Your task to perform on an android device: find which apps use the phone's location Image 0: 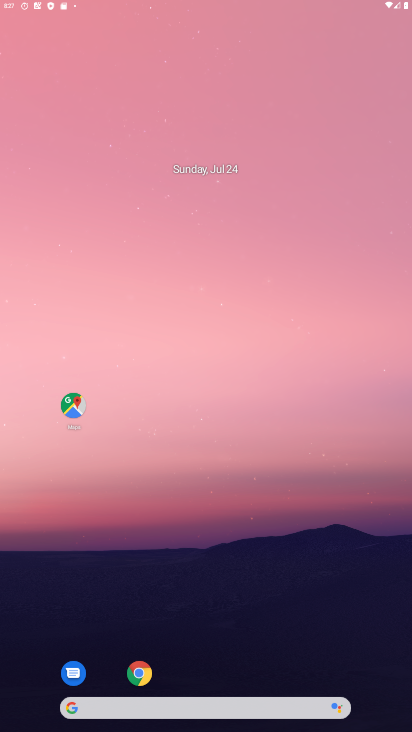
Step 0: click (131, 85)
Your task to perform on an android device: find which apps use the phone's location Image 1: 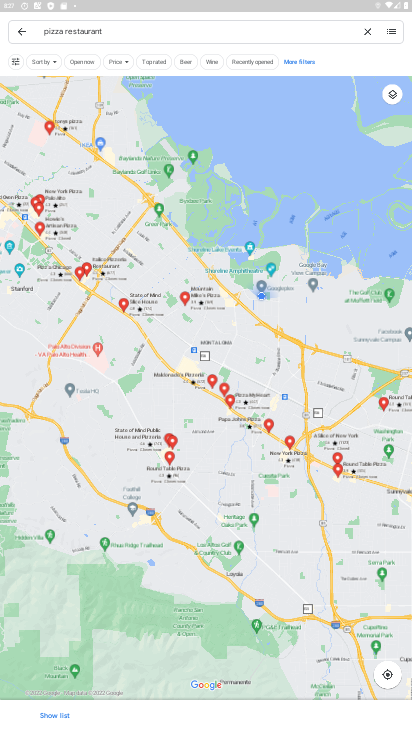
Step 1: press home button
Your task to perform on an android device: find which apps use the phone's location Image 2: 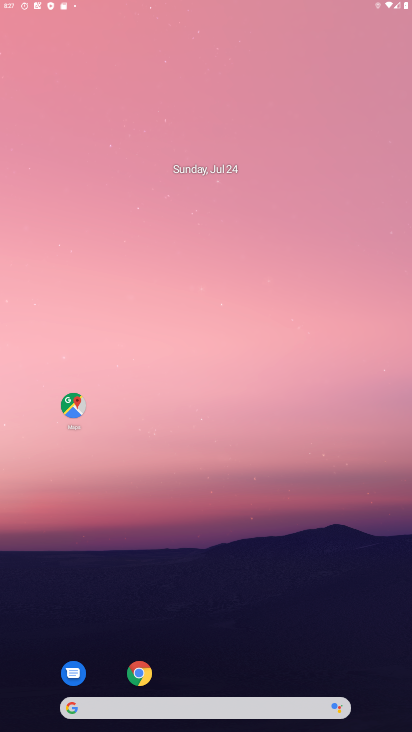
Step 2: drag from (127, 601) to (192, 134)
Your task to perform on an android device: find which apps use the phone's location Image 3: 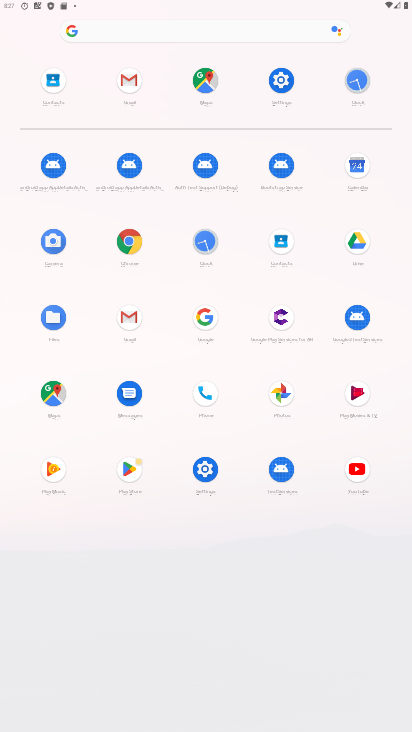
Step 3: drag from (188, 542) to (202, 235)
Your task to perform on an android device: find which apps use the phone's location Image 4: 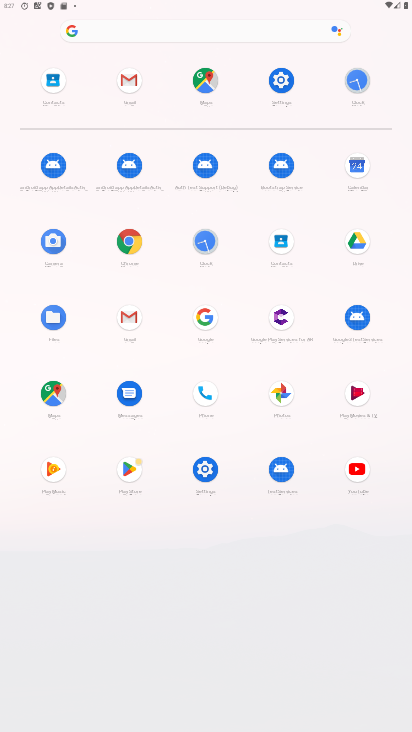
Step 4: drag from (260, 440) to (255, 174)
Your task to perform on an android device: find which apps use the phone's location Image 5: 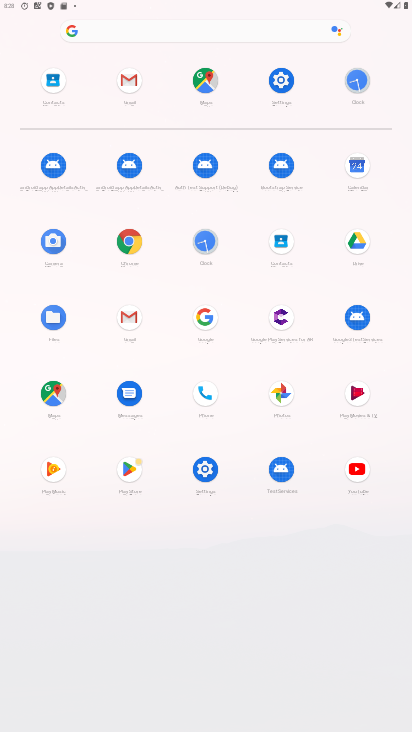
Step 5: click (278, 391)
Your task to perform on an android device: find which apps use the phone's location Image 6: 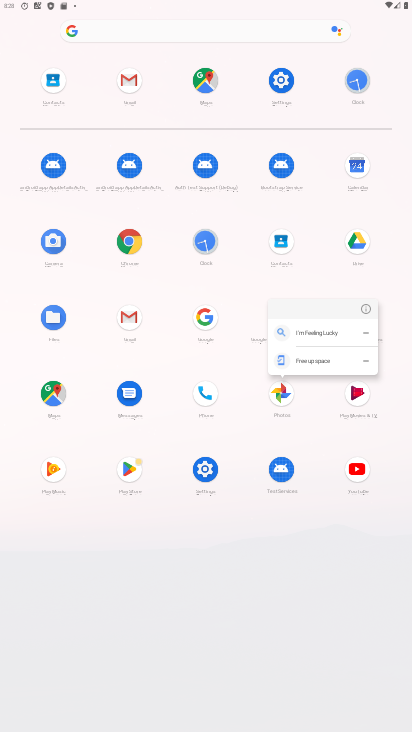
Step 6: click (364, 310)
Your task to perform on an android device: find which apps use the phone's location Image 7: 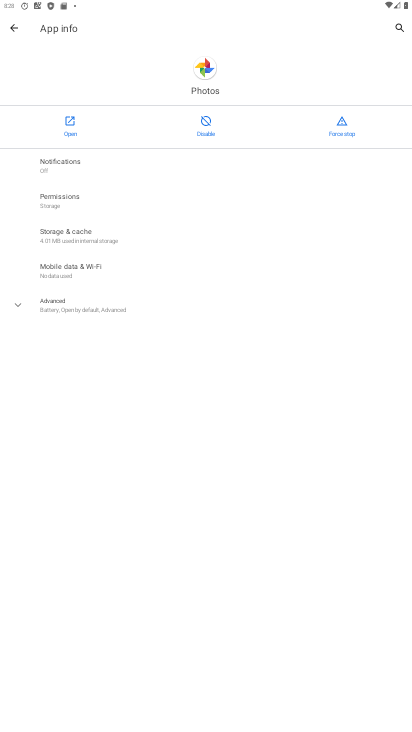
Step 7: click (77, 119)
Your task to perform on an android device: find which apps use the phone's location Image 8: 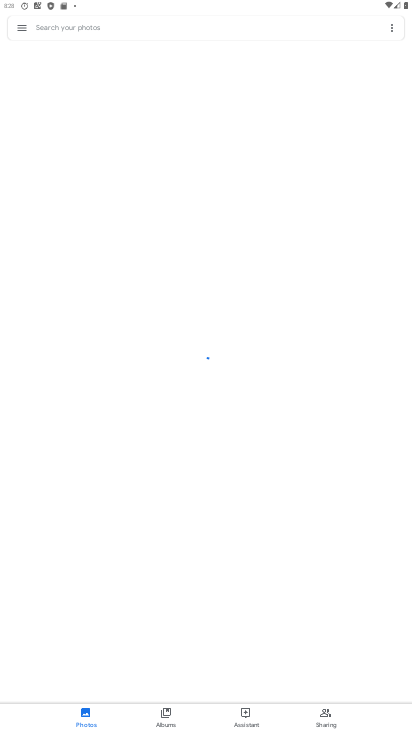
Step 8: drag from (232, 702) to (279, 210)
Your task to perform on an android device: find which apps use the phone's location Image 9: 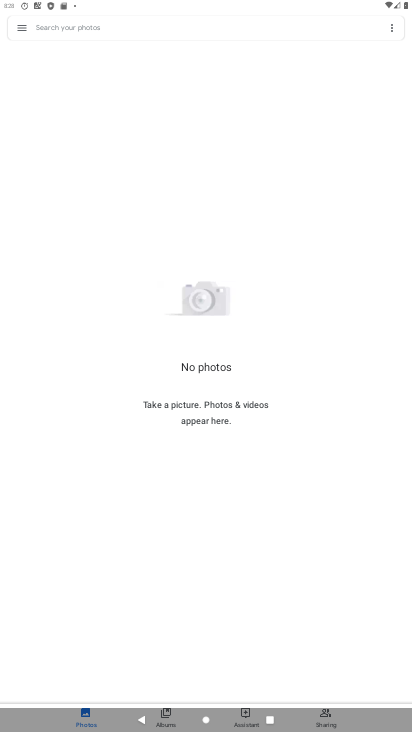
Step 9: drag from (230, 532) to (228, 188)
Your task to perform on an android device: find which apps use the phone's location Image 10: 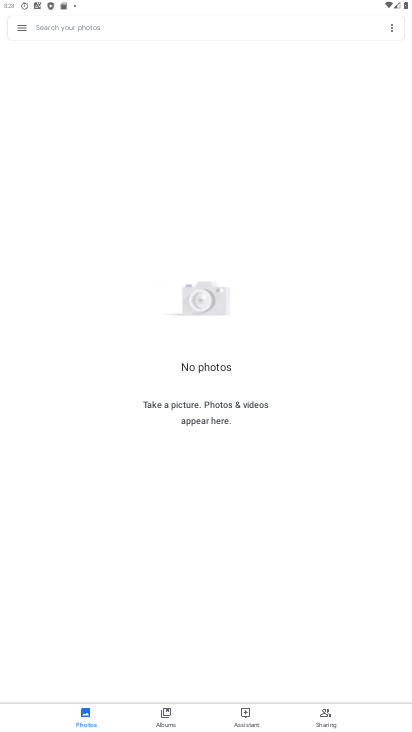
Step 10: click (21, 31)
Your task to perform on an android device: find which apps use the phone's location Image 11: 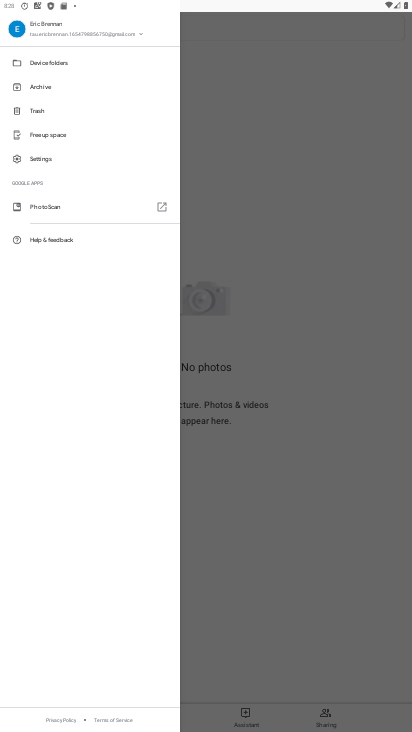
Step 11: click (43, 160)
Your task to perform on an android device: find which apps use the phone's location Image 12: 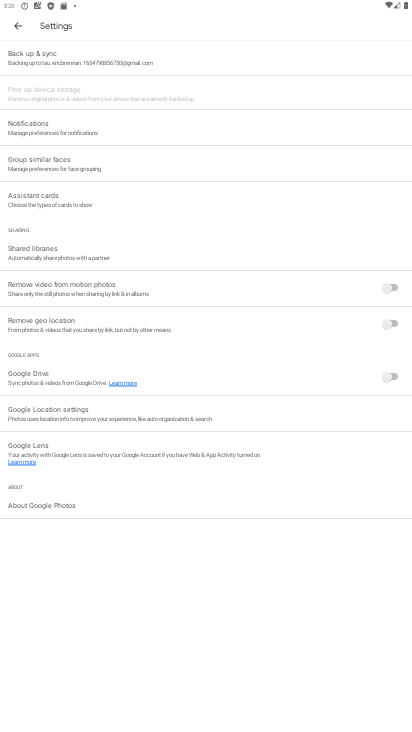
Step 12: drag from (173, 541) to (222, 78)
Your task to perform on an android device: find which apps use the phone's location Image 13: 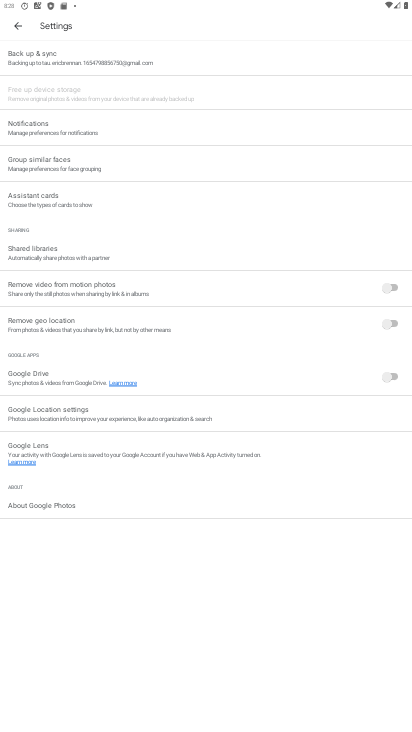
Step 13: drag from (229, 584) to (306, 164)
Your task to perform on an android device: find which apps use the phone's location Image 14: 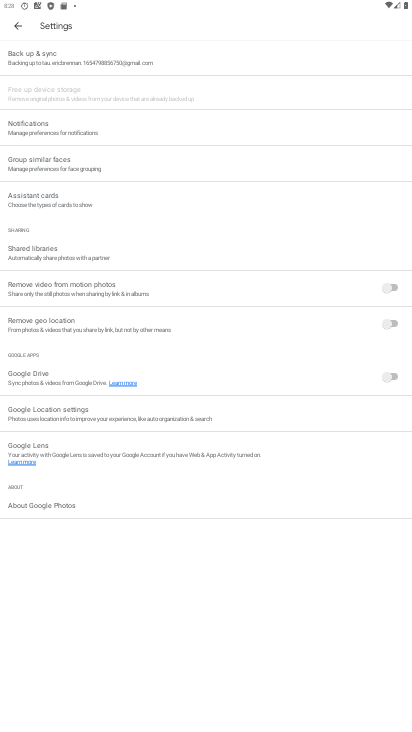
Step 14: drag from (112, 514) to (138, 40)
Your task to perform on an android device: find which apps use the phone's location Image 15: 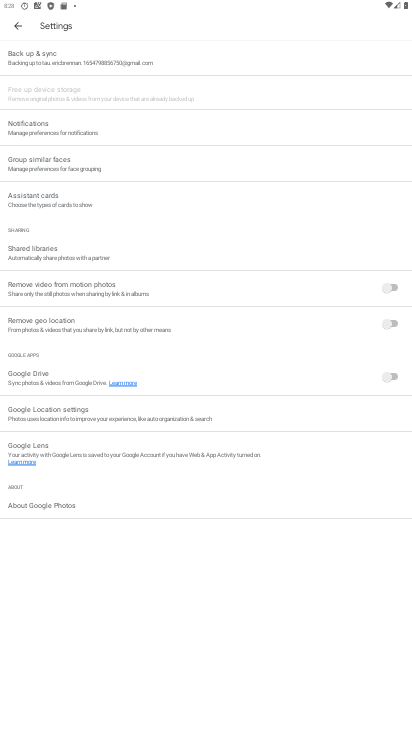
Step 15: click (104, 53)
Your task to perform on an android device: find which apps use the phone's location Image 16: 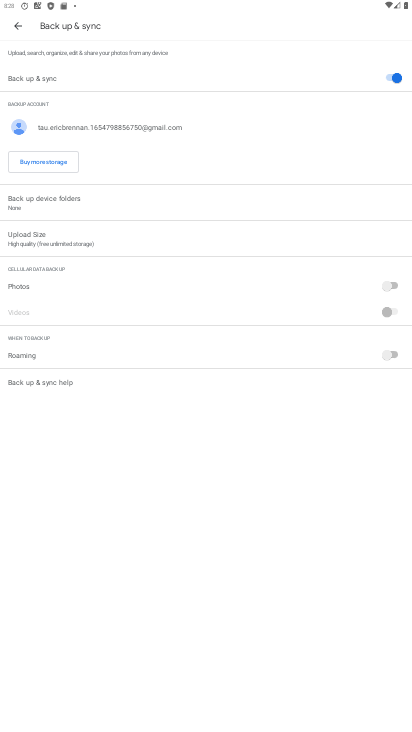
Step 16: press home button
Your task to perform on an android device: find which apps use the phone's location Image 17: 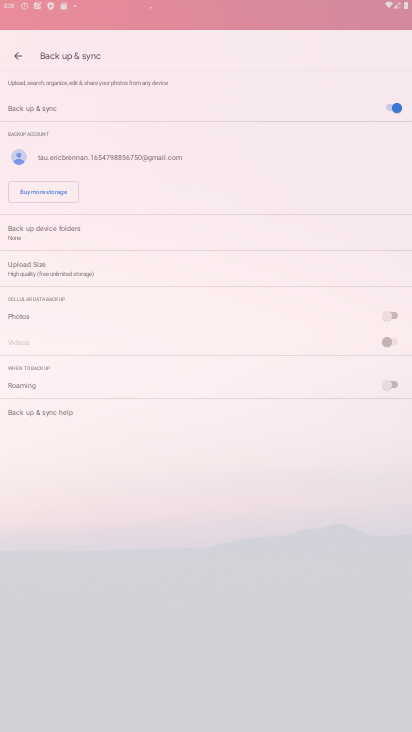
Step 17: drag from (172, 589) to (284, 54)
Your task to perform on an android device: find which apps use the phone's location Image 18: 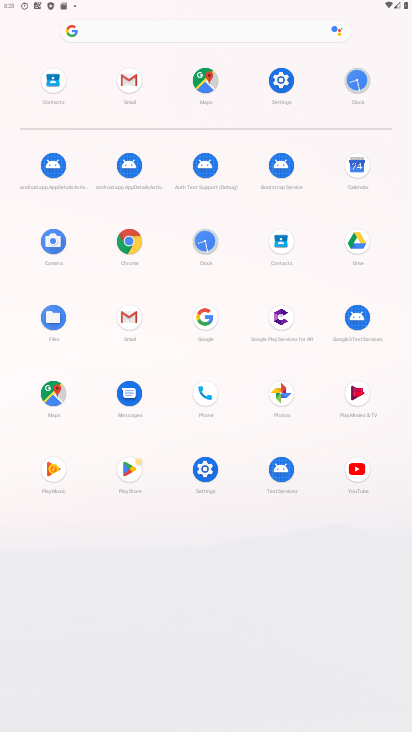
Step 18: click (199, 471)
Your task to perform on an android device: find which apps use the phone's location Image 19: 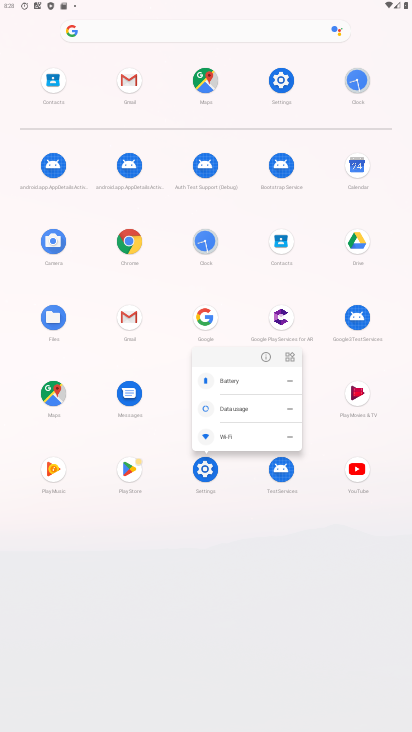
Step 19: click (266, 354)
Your task to perform on an android device: find which apps use the phone's location Image 20: 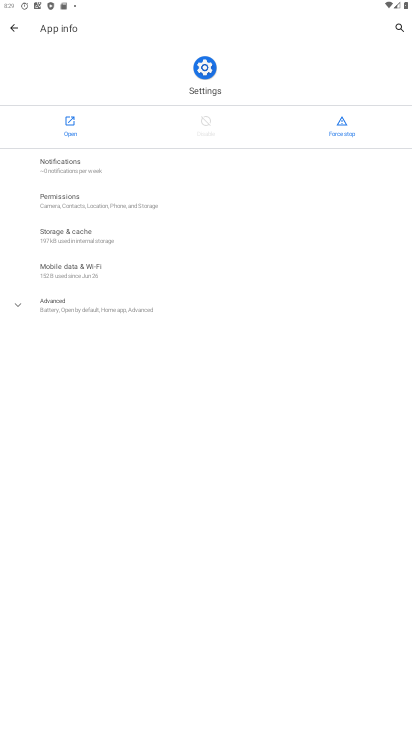
Step 20: click (67, 121)
Your task to perform on an android device: find which apps use the phone's location Image 21: 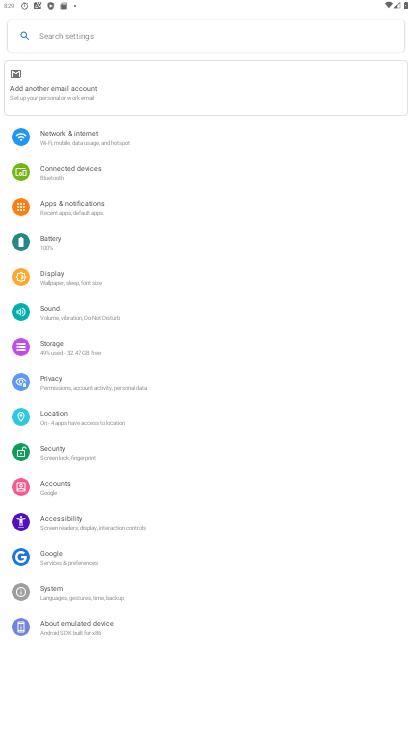
Step 21: click (80, 420)
Your task to perform on an android device: find which apps use the phone's location Image 22: 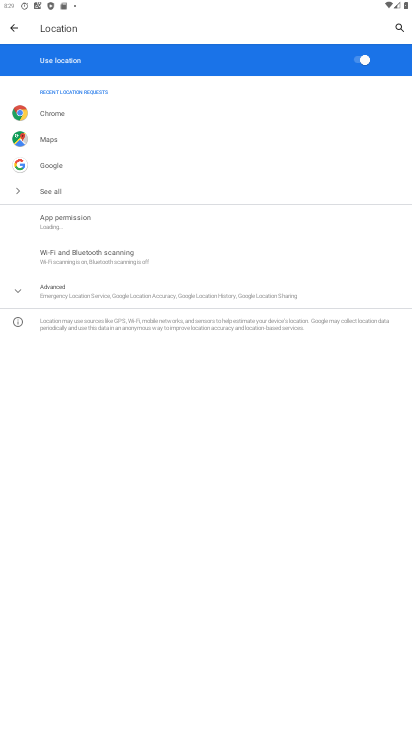
Step 22: click (82, 219)
Your task to perform on an android device: find which apps use the phone's location Image 23: 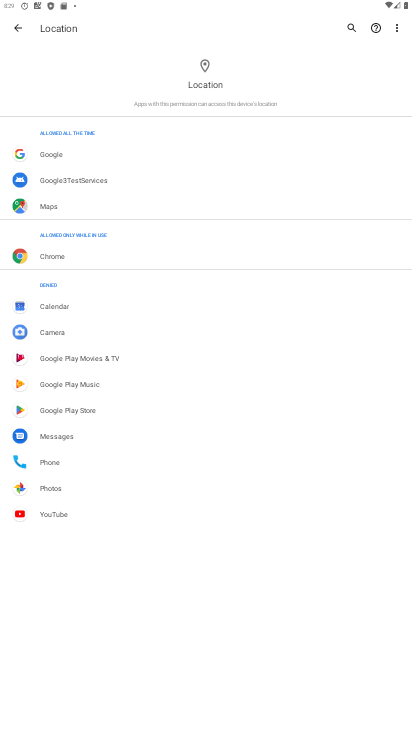
Step 23: task complete